Your task to perform on an android device: Open the calendar and show me this week's events? Image 0: 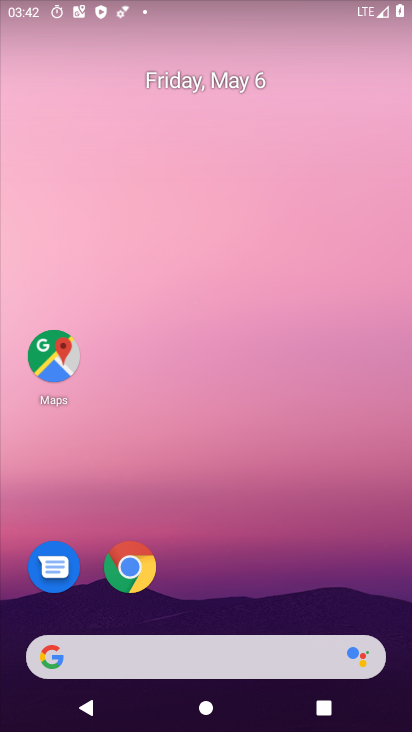
Step 0: drag from (262, 444) to (307, 136)
Your task to perform on an android device: Open the calendar and show me this week's events? Image 1: 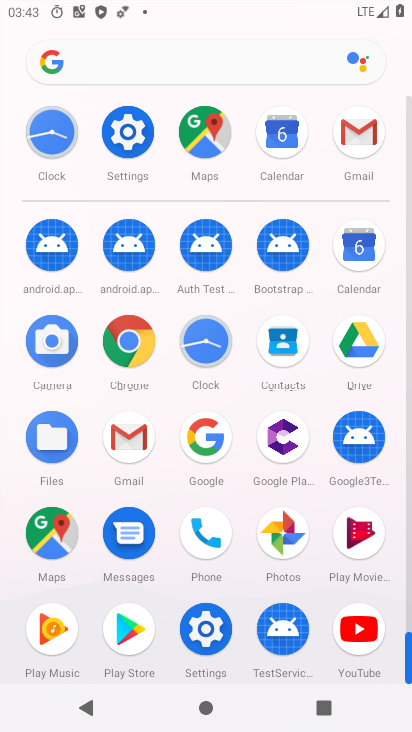
Step 1: click (364, 258)
Your task to perform on an android device: Open the calendar and show me this week's events? Image 2: 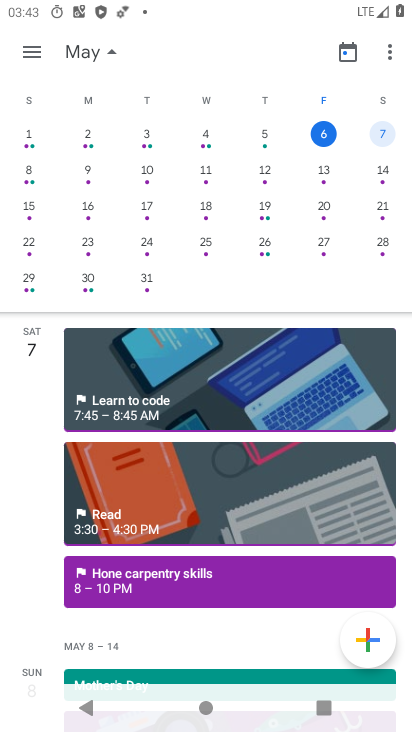
Step 2: click (39, 166)
Your task to perform on an android device: Open the calendar and show me this week's events? Image 3: 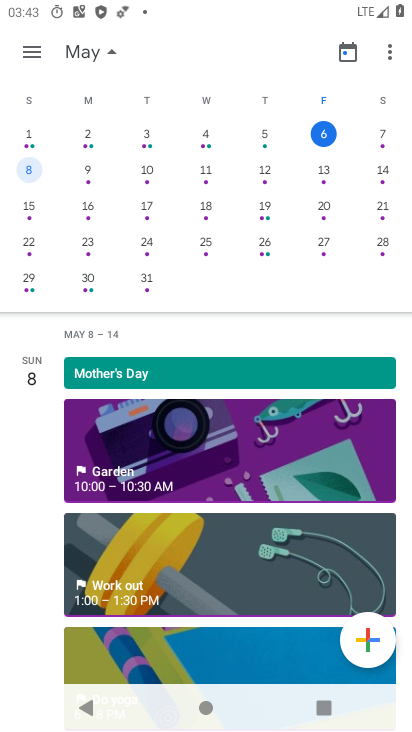
Step 3: click (92, 170)
Your task to perform on an android device: Open the calendar and show me this week's events? Image 4: 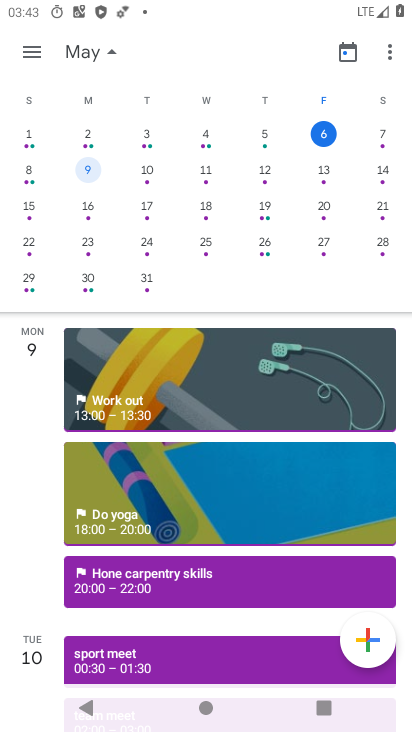
Step 4: click (145, 169)
Your task to perform on an android device: Open the calendar and show me this week's events? Image 5: 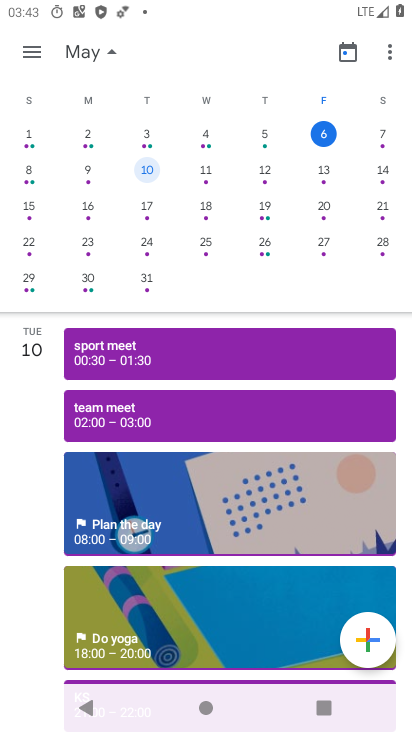
Step 5: click (220, 176)
Your task to perform on an android device: Open the calendar and show me this week's events? Image 6: 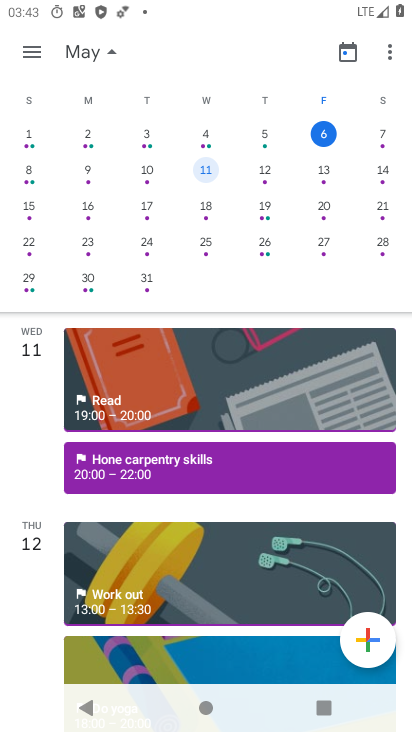
Step 6: click (258, 182)
Your task to perform on an android device: Open the calendar and show me this week's events? Image 7: 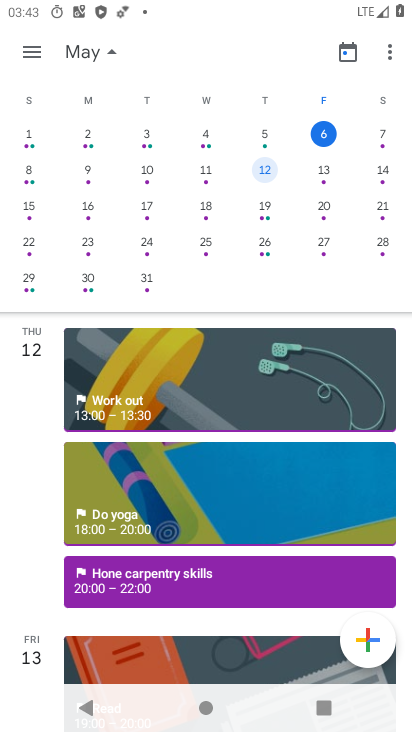
Step 7: click (324, 175)
Your task to perform on an android device: Open the calendar and show me this week's events? Image 8: 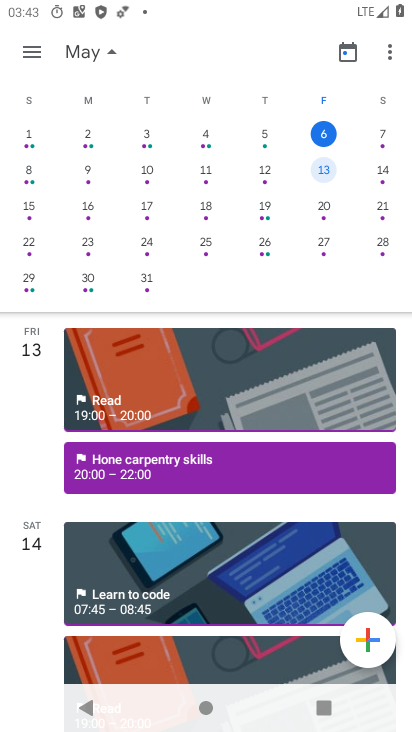
Step 8: click (381, 173)
Your task to perform on an android device: Open the calendar and show me this week's events? Image 9: 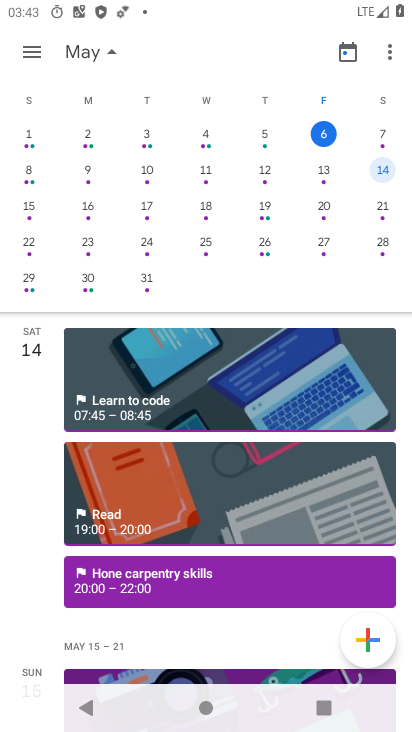
Step 9: task complete